Your task to perform on an android device: see sites visited before in the chrome app Image 0: 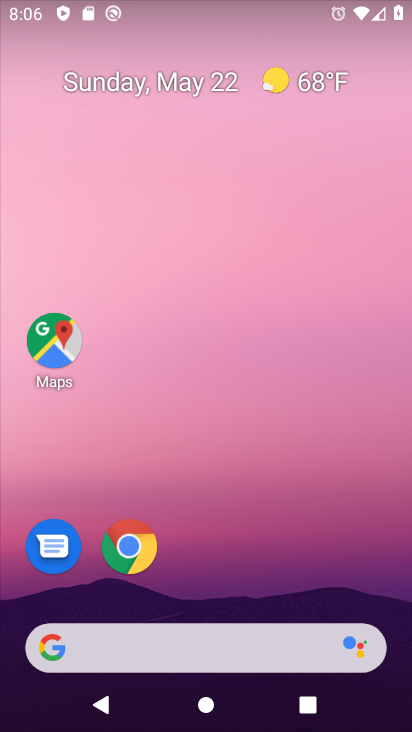
Step 0: drag from (242, 713) to (220, 157)
Your task to perform on an android device: see sites visited before in the chrome app Image 1: 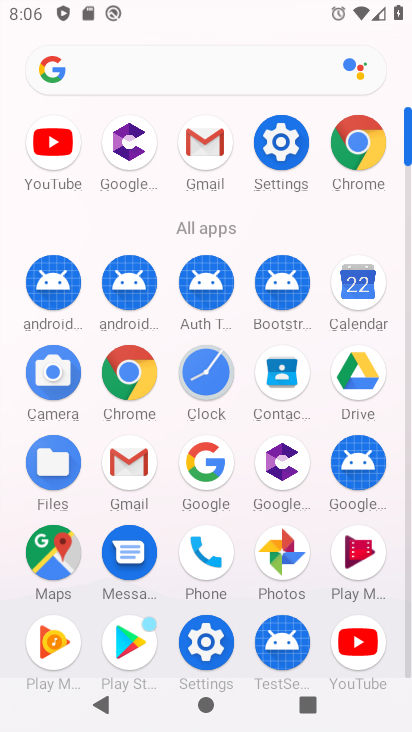
Step 1: click (357, 149)
Your task to perform on an android device: see sites visited before in the chrome app Image 2: 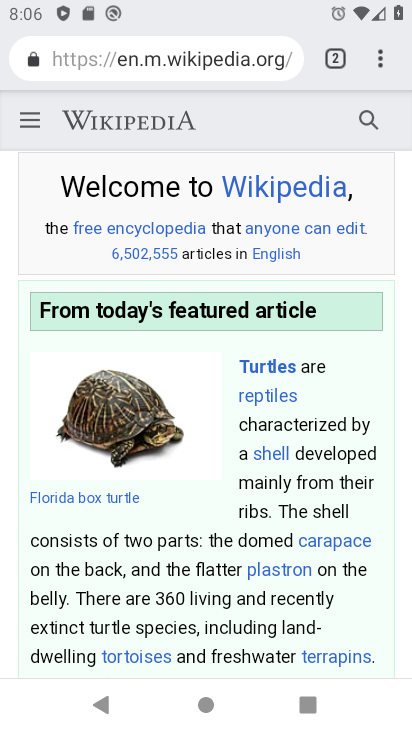
Step 2: drag from (372, 55) to (189, 318)
Your task to perform on an android device: see sites visited before in the chrome app Image 3: 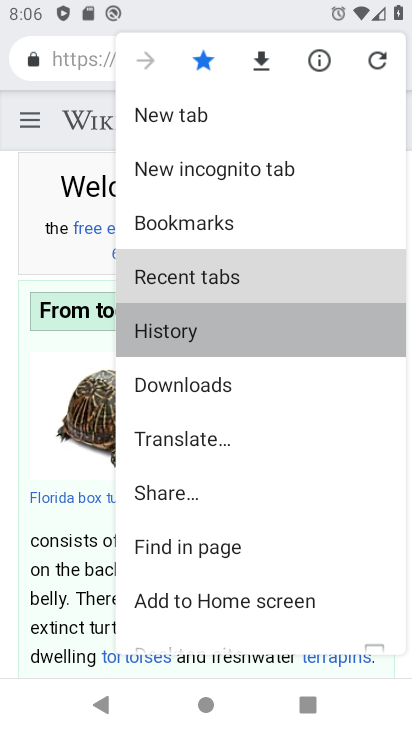
Step 3: drag from (177, 334) to (176, 465)
Your task to perform on an android device: see sites visited before in the chrome app Image 4: 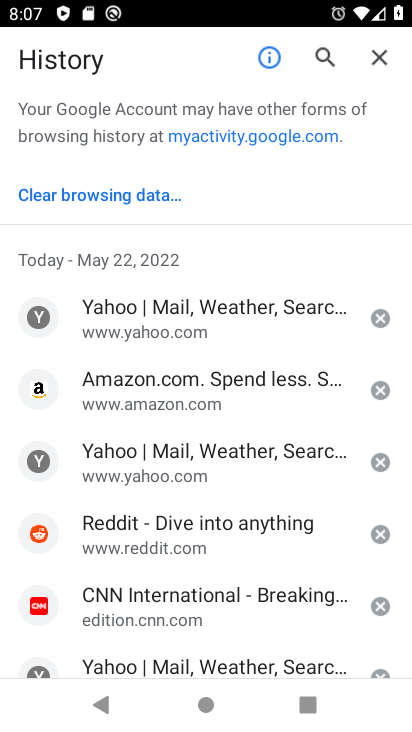
Step 4: click (366, 51)
Your task to perform on an android device: see sites visited before in the chrome app Image 5: 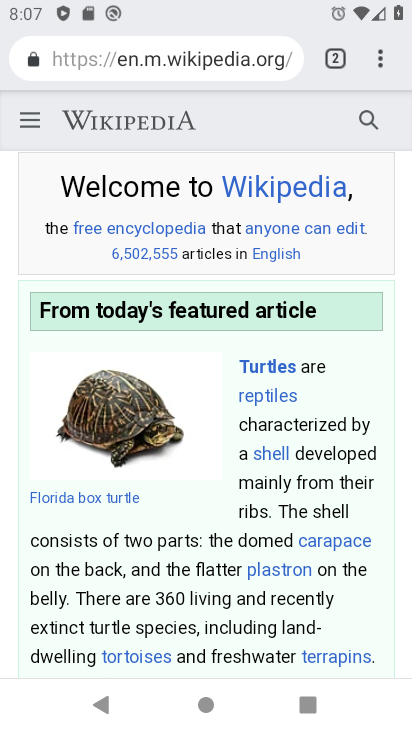
Step 5: drag from (376, 62) to (189, 266)
Your task to perform on an android device: see sites visited before in the chrome app Image 6: 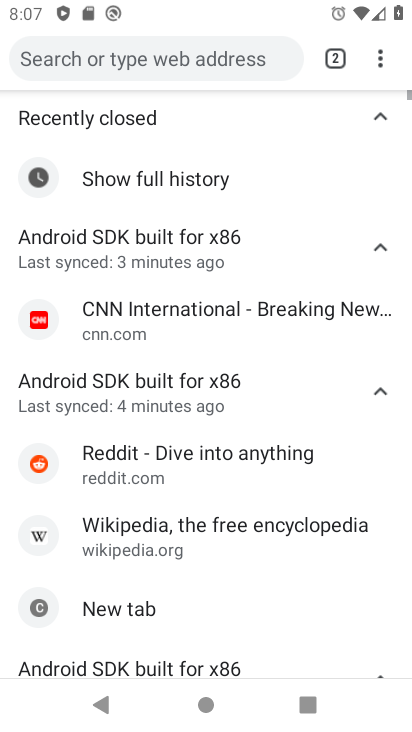
Step 6: click (190, 276)
Your task to perform on an android device: see sites visited before in the chrome app Image 7: 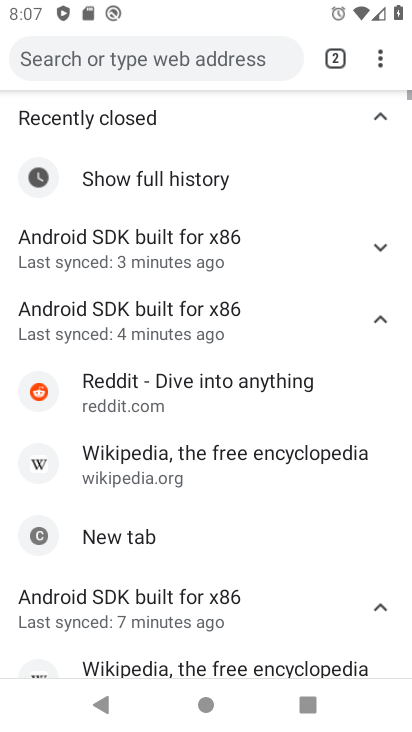
Step 7: click (220, 280)
Your task to perform on an android device: see sites visited before in the chrome app Image 8: 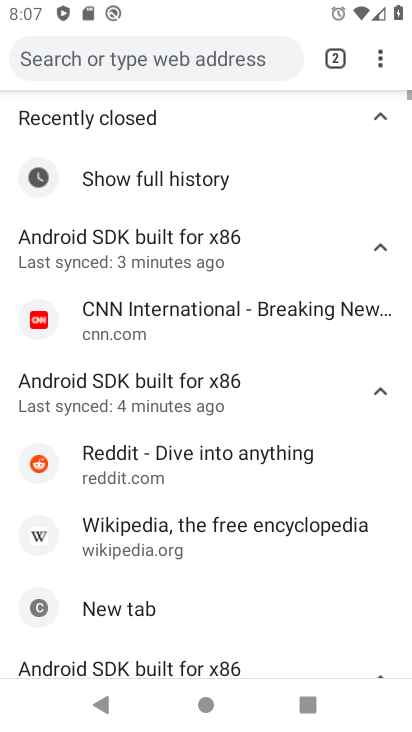
Step 8: task complete